Your task to perform on an android device: Do I have any events tomorrow? Image 0: 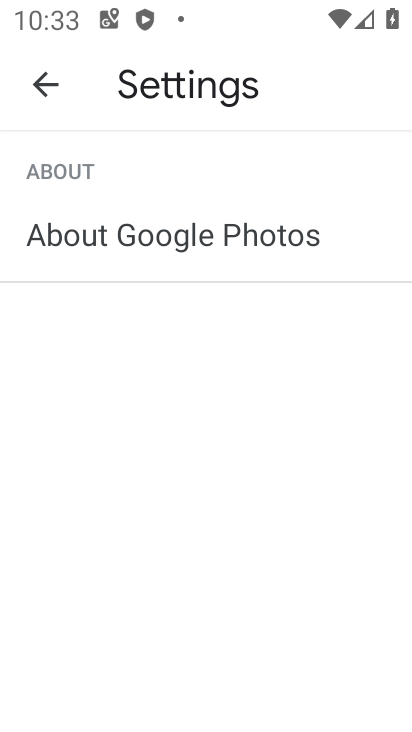
Step 0: press home button
Your task to perform on an android device: Do I have any events tomorrow? Image 1: 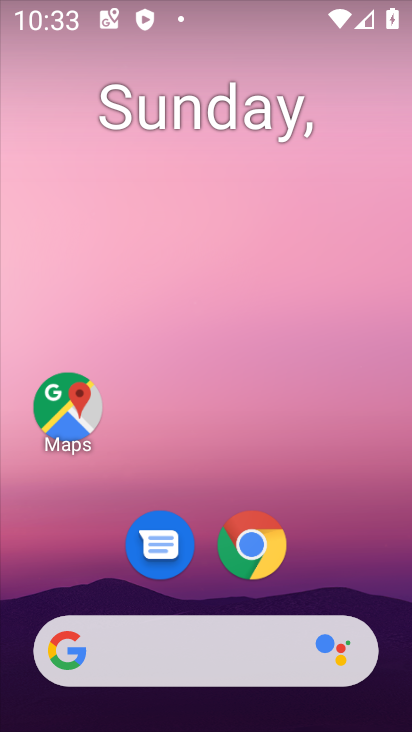
Step 1: drag from (59, 609) to (220, 123)
Your task to perform on an android device: Do I have any events tomorrow? Image 2: 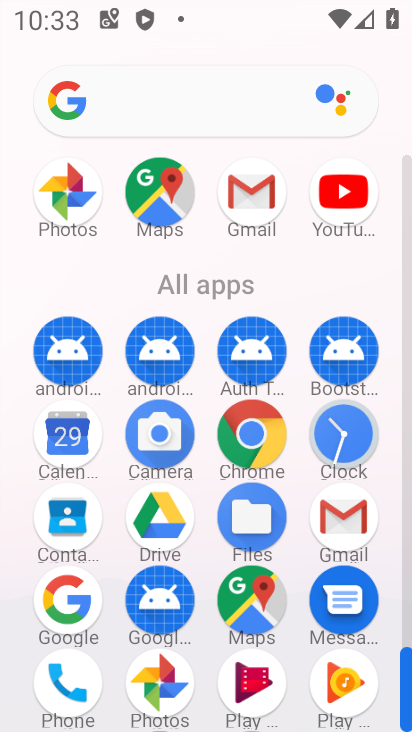
Step 2: click (66, 436)
Your task to perform on an android device: Do I have any events tomorrow? Image 3: 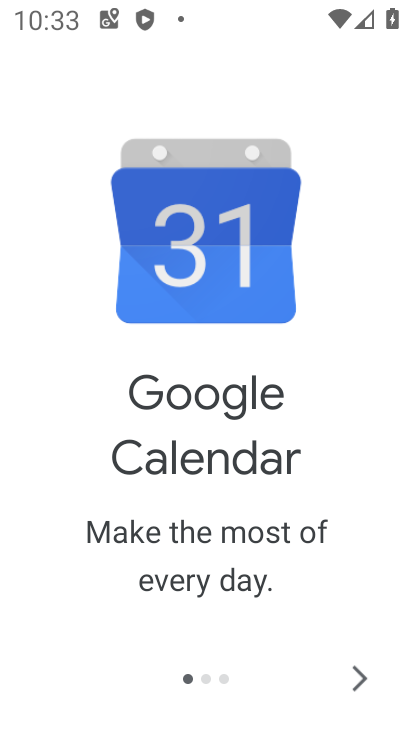
Step 3: click (370, 678)
Your task to perform on an android device: Do I have any events tomorrow? Image 4: 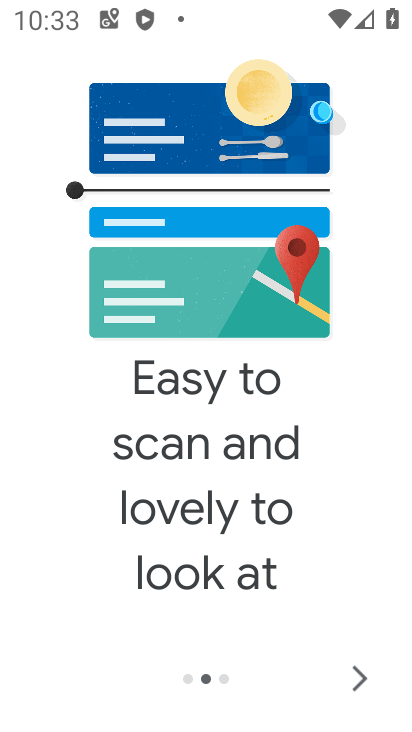
Step 4: click (370, 678)
Your task to perform on an android device: Do I have any events tomorrow? Image 5: 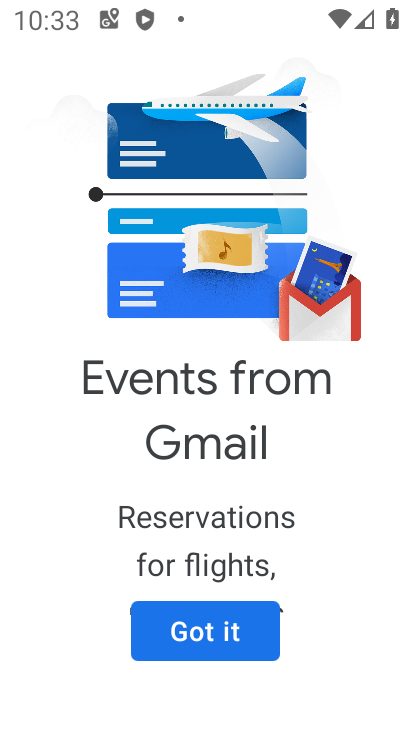
Step 5: click (371, 679)
Your task to perform on an android device: Do I have any events tomorrow? Image 6: 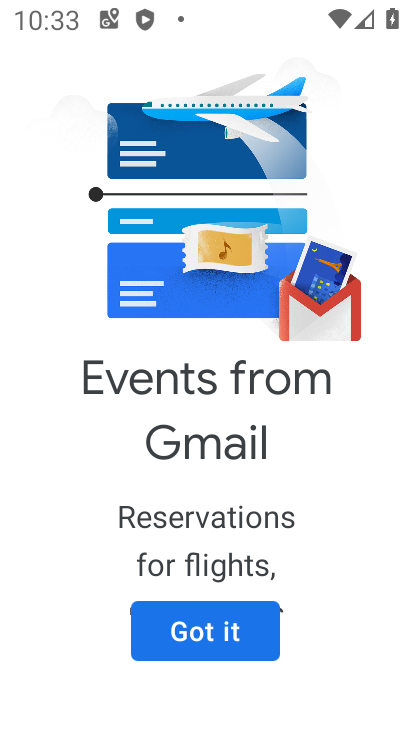
Step 6: click (265, 647)
Your task to perform on an android device: Do I have any events tomorrow? Image 7: 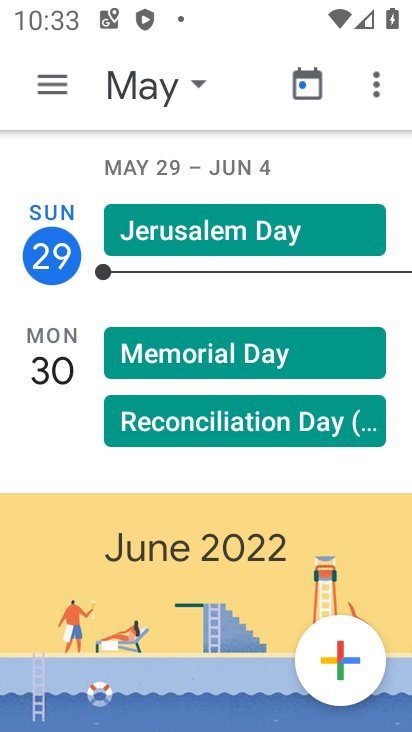
Step 7: click (67, 379)
Your task to perform on an android device: Do I have any events tomorrow? Image 8: 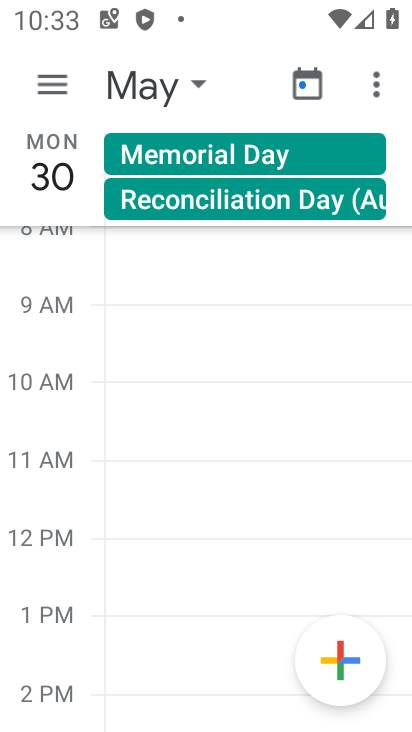
Step 8: task complete